Your task to perform on an android device: see creations saved in the google photos Image 0: 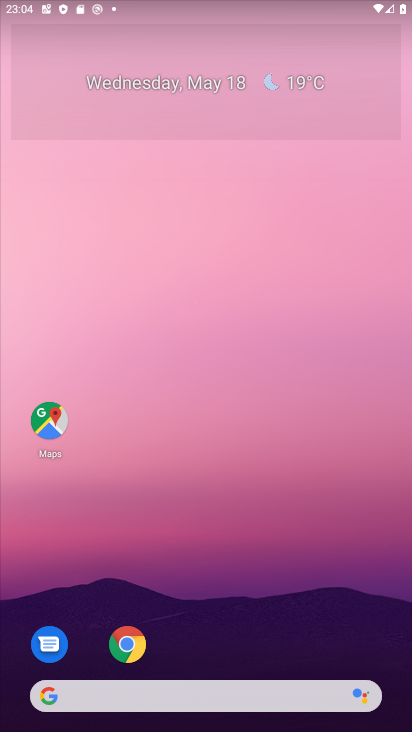
Step 0: drag from (286, 582) to (280, 202)
Your task to perform on an android device: see creations saved in the google photos Image 1: 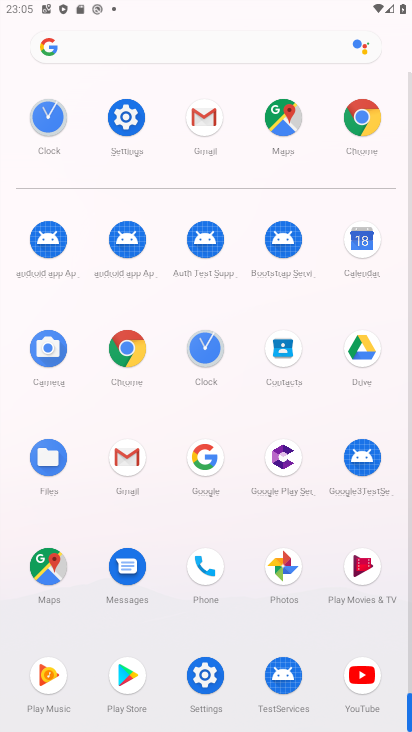
Step 1: click (286, 565)
Your task to perform on an android device: see creations saved in the google photos Image 2: 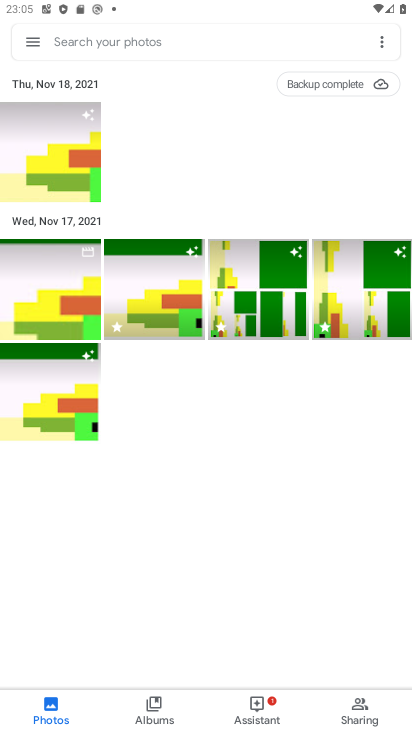
Step 2: click (261, 701)
Your task to perform on an android device: see creations saved in the google photos Image 3: 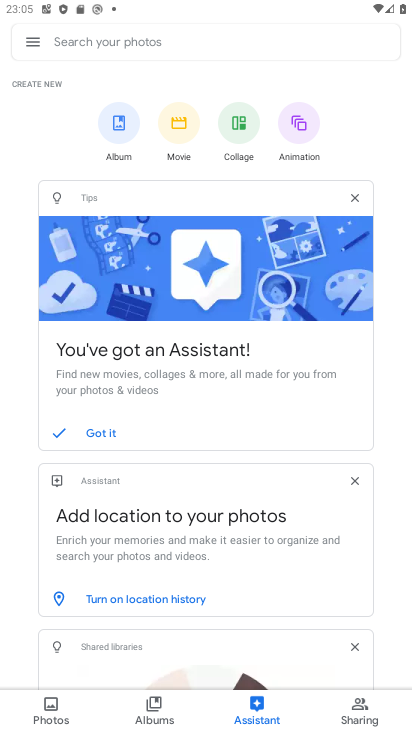
Step 3: task complete